Your task to perform on an android device: change the clock display to digital Image 0: 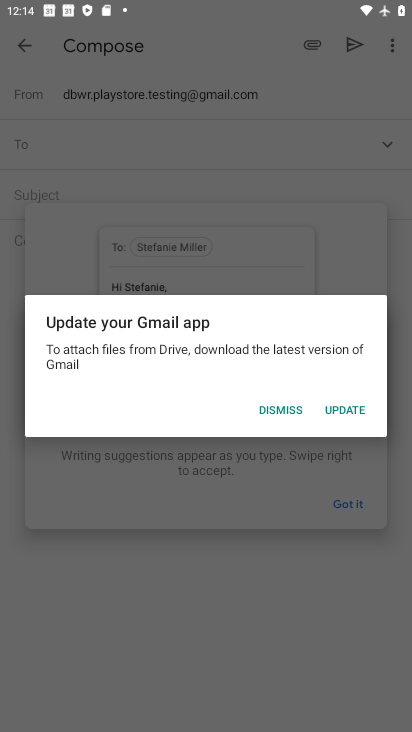
Step 0: press home button
Your task to perform on an android device: change the clock display to digital Image 1: 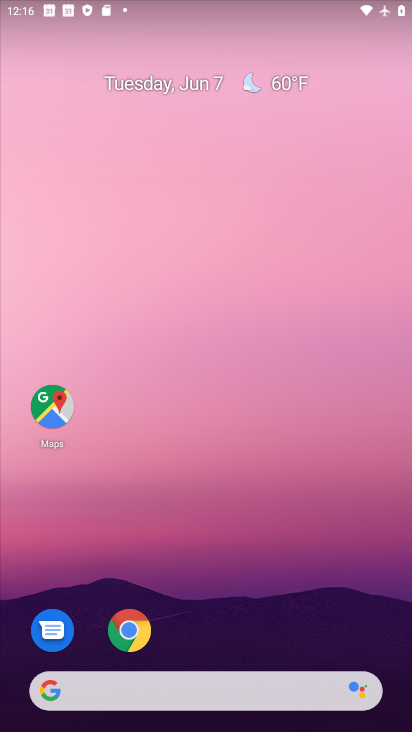
Step 1: drag from (357, 617) to (251, 48)
Your task to perform on an android device: change the clock display to digital Image 2: 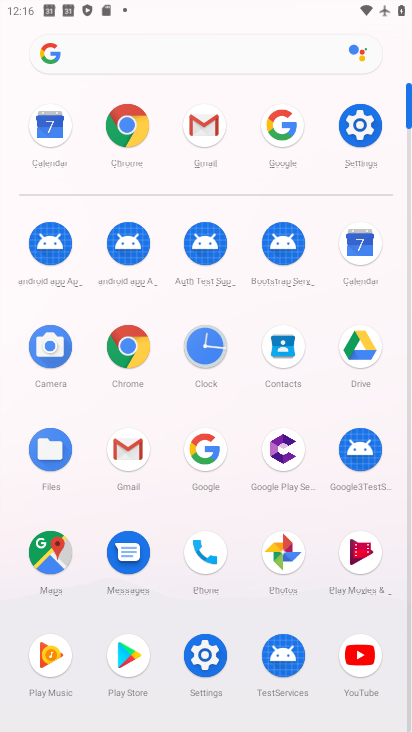
Step 2: click (211, 346)
Your task to perform on an android device: change the clock display to digital Image 3: 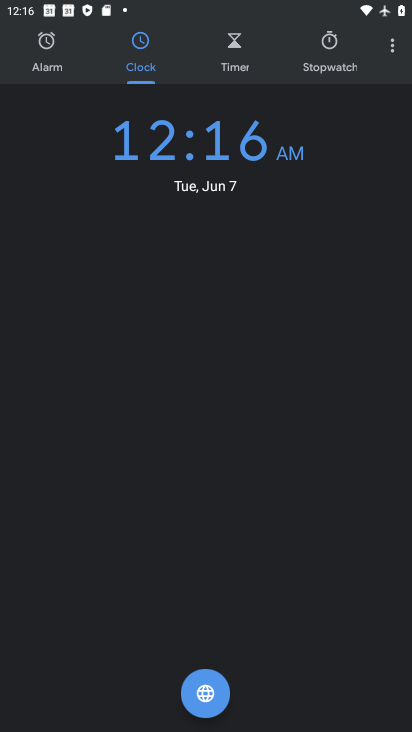
Step 3: click (380, 42)
Your task to perform on an android device: change the clock display to digital Image 4: 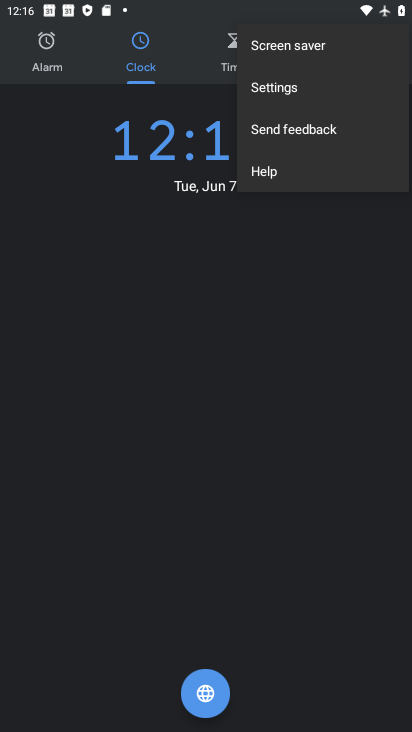
Step 4: click (291, 100)
Your task to perform on an android device: change the clock display to digital Image 5: 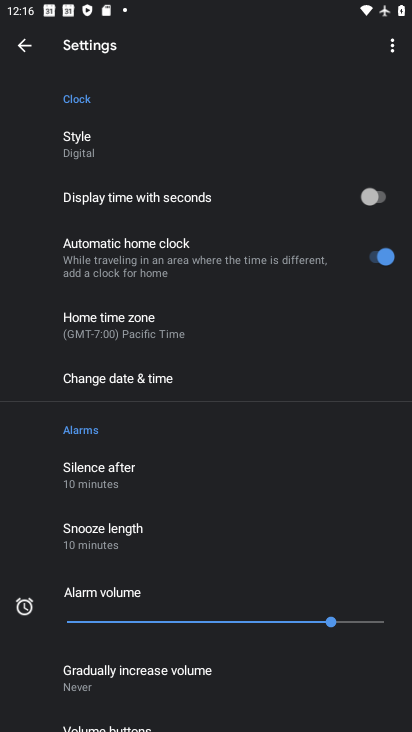
Step 5: click (150, 152)
Your task to perform on an android device: change the clock display to digital Image 6: 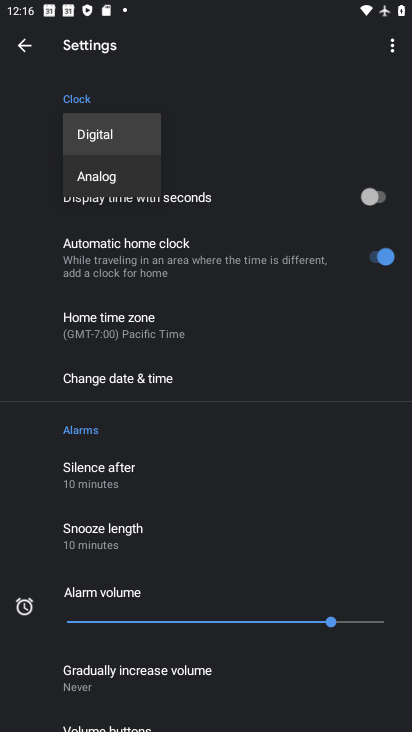
Step 6: click (134, 131)
Your task to perform on an android device: change the clock display to digital Image 7: 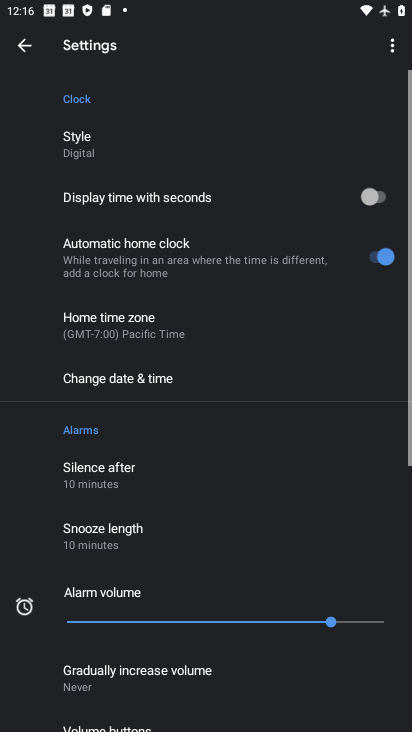
Step 7: task complete